Your task to perform on an android device: Go to internet settings Image 0: 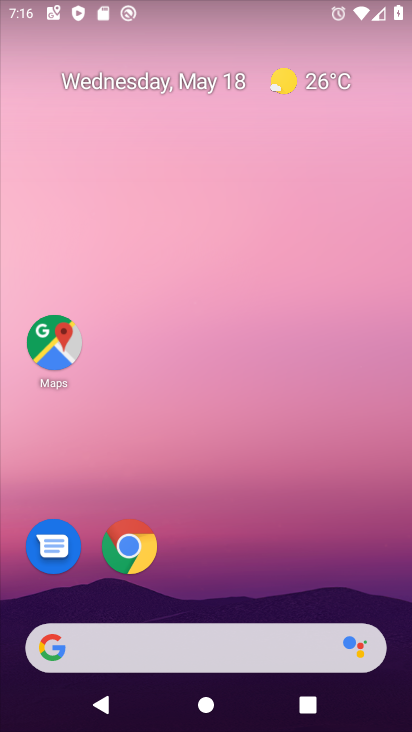
Step 0: drag from (393, 626) to (320, 52)
Your task to perform on an android device: Go to internet settings Image 1: 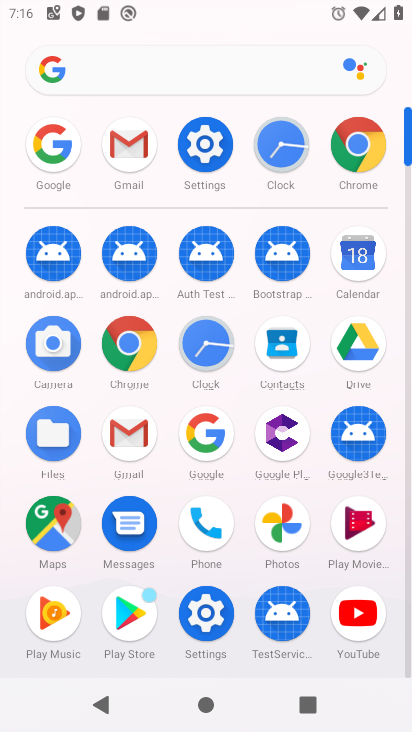
Step 1: click (215, 617)
Your task to perform on an android device: Go to internet settings Image 2: 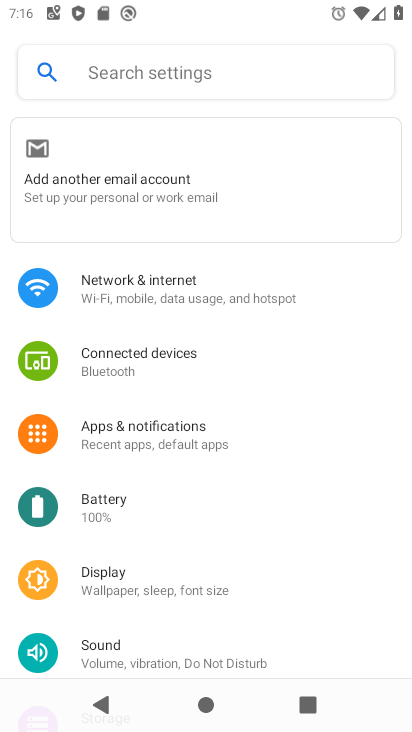
Step 2: click (192, 312)
Your task to perform on an android device: Go to internet settings Image 3: 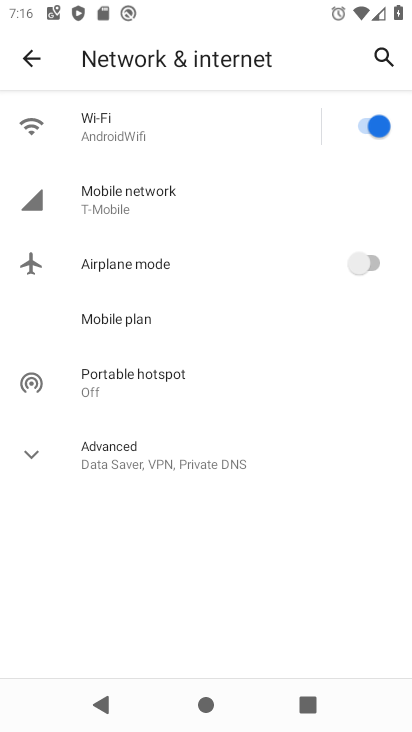
Step 3: task complete